Your task to perform on an android device: turn off priority inbox in the gmail app Image 0: 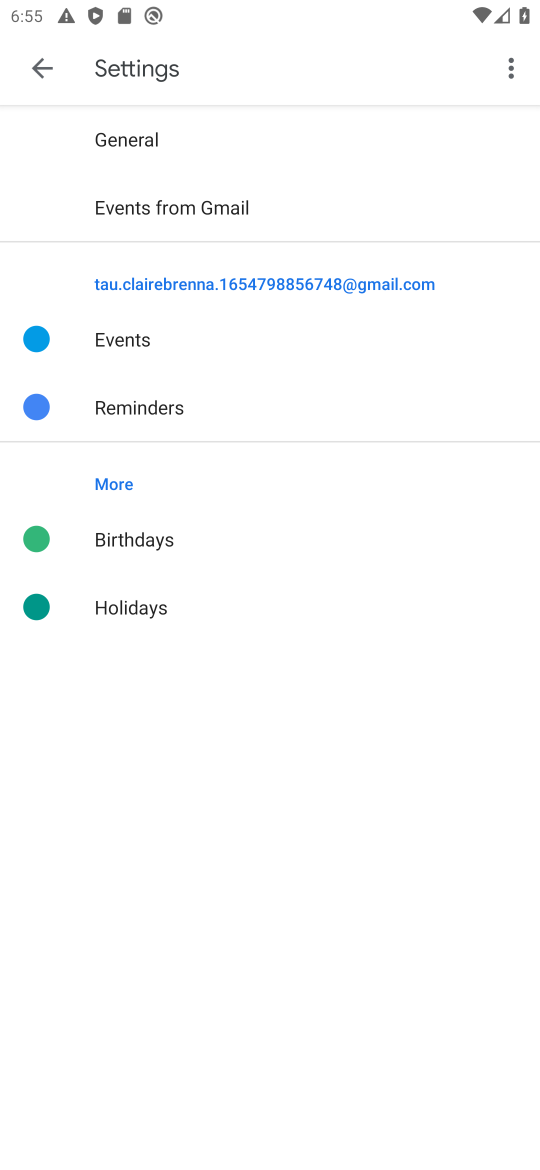
Step 0: press home button
Your task to perform on an android device: turn off priority inbox in the gmail app Image 1: 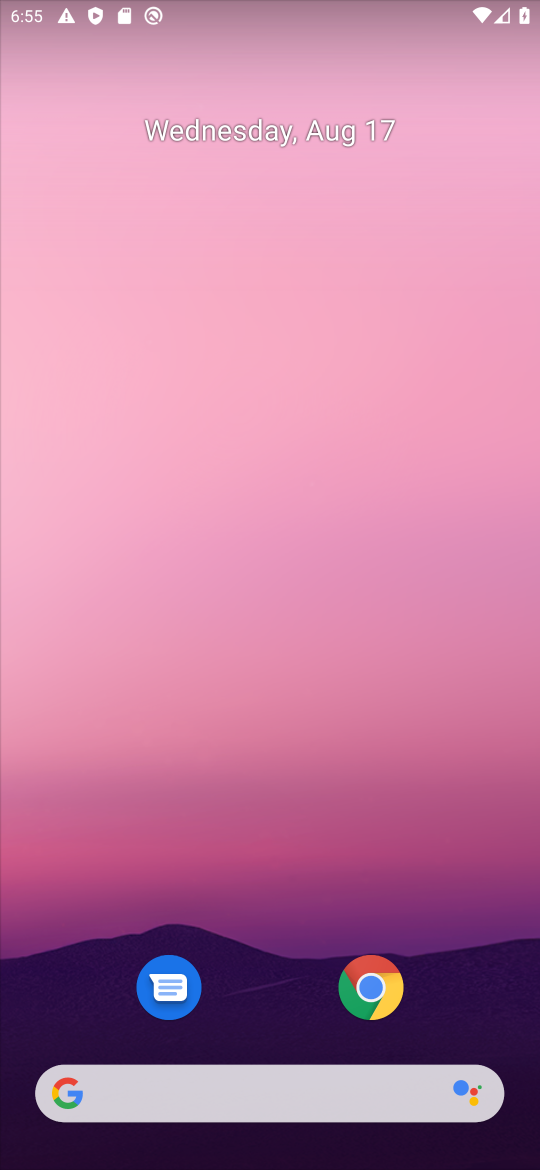
Step 1: drag from (517, 1035) to (219, 7)
Your task to perform on an android device: turn off priority inbox in the gmail app Image 2: 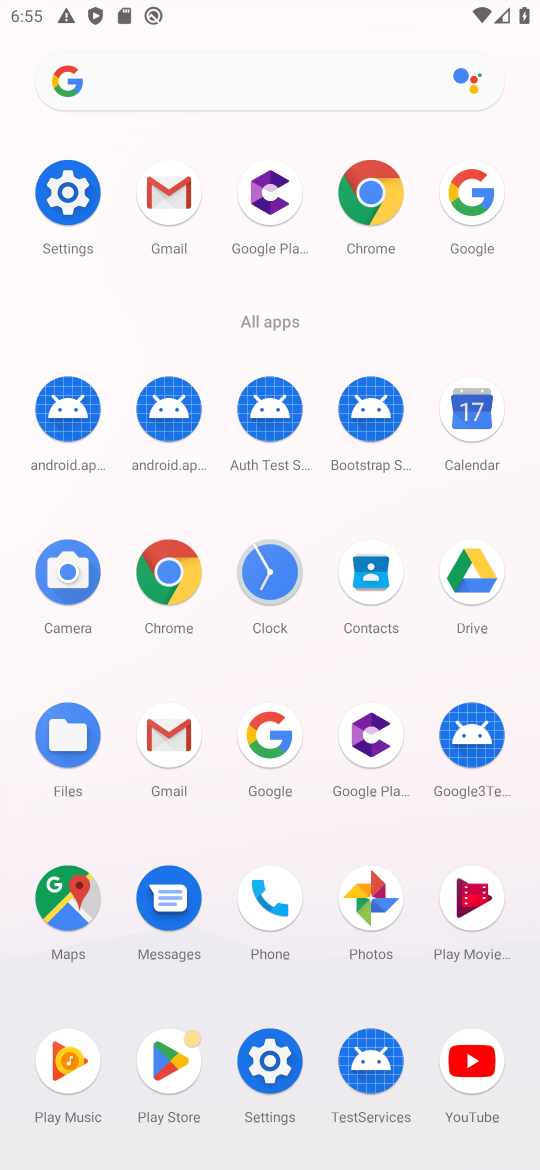
Step 2: click (155, 743)
Your task to perform on an android device: turn off priority inbox in the gmail app Image 3: 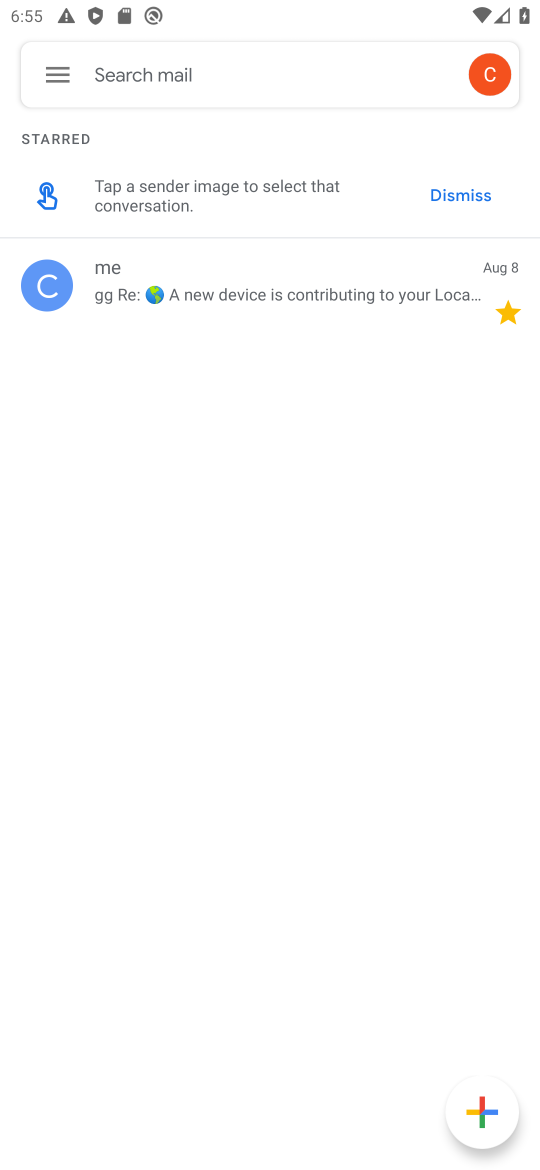
Step 3: click (33, 69)
Your task to perform on an android device: turn off priority inbox in the gmail app Image 4: 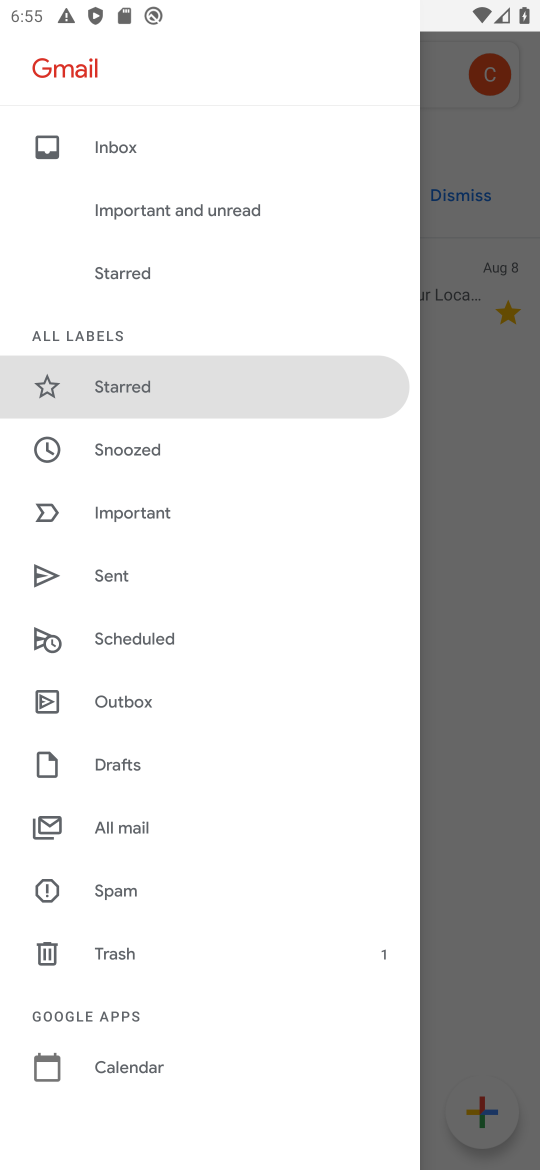
Step 4: drag from (196, 1030) to (131, 0)
Your task to perform on an android device: turn off priority inbox in the gmail app Image 5: 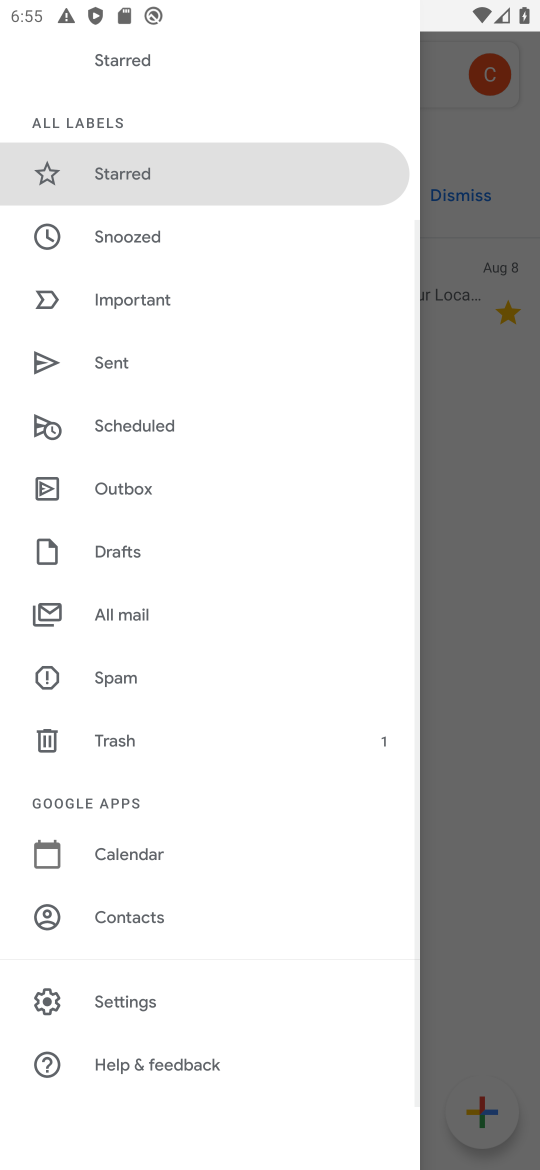
Step 5: click (112, 996)
Your task to perform on an android device: turn off priority inbox in the gmail app Image 6: 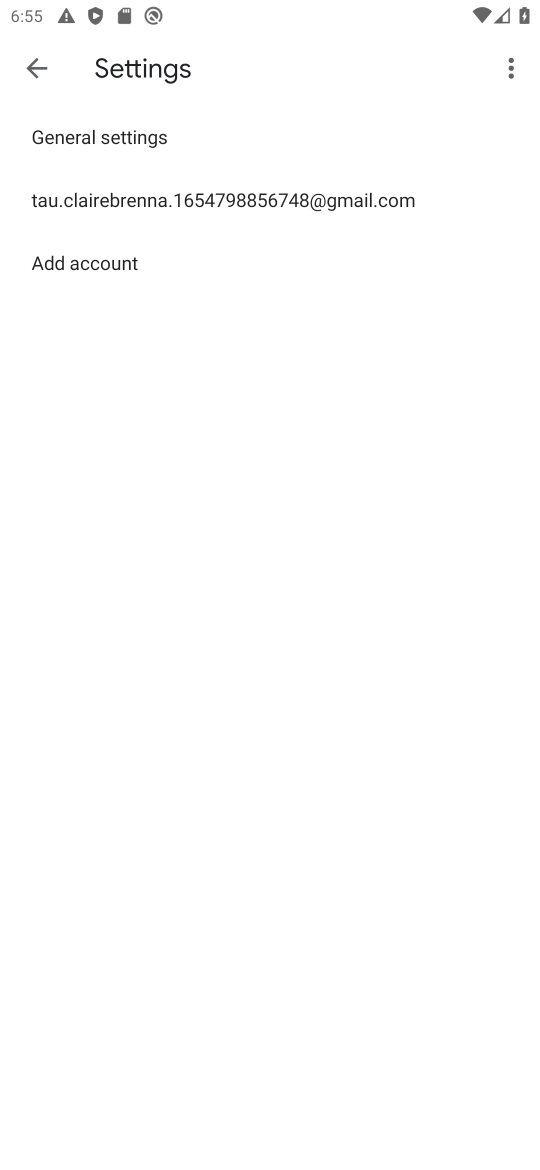
Step 6: click (197, 207)
Your task to perform on an android device: turn off priority inbox in the gmail app Image 7: 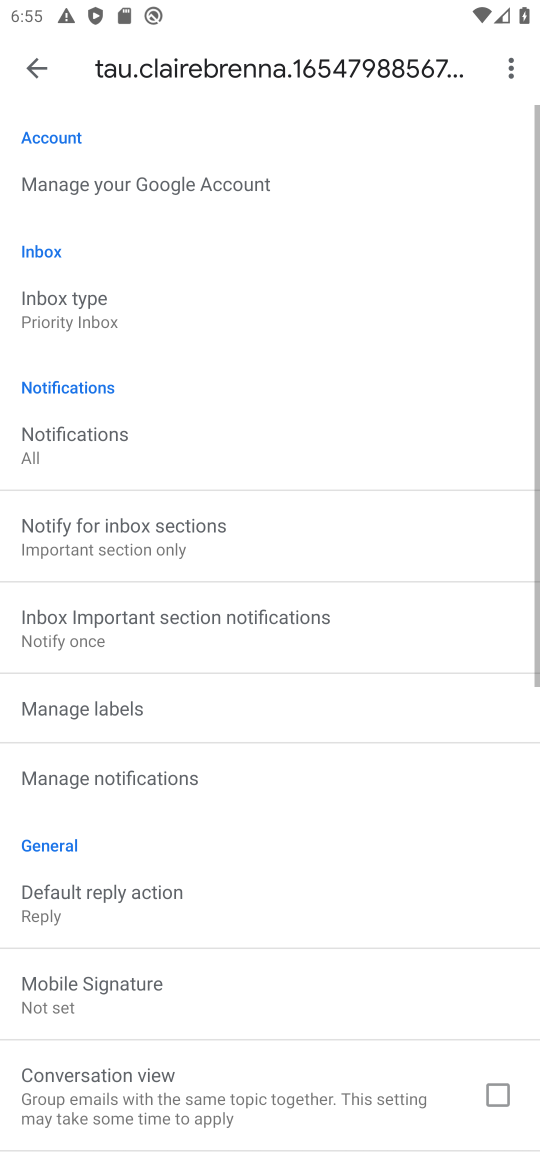
Step 7: click (103, 301)
Your task to perform on an android device: turn off priority inbox in the gmail app Image 8: 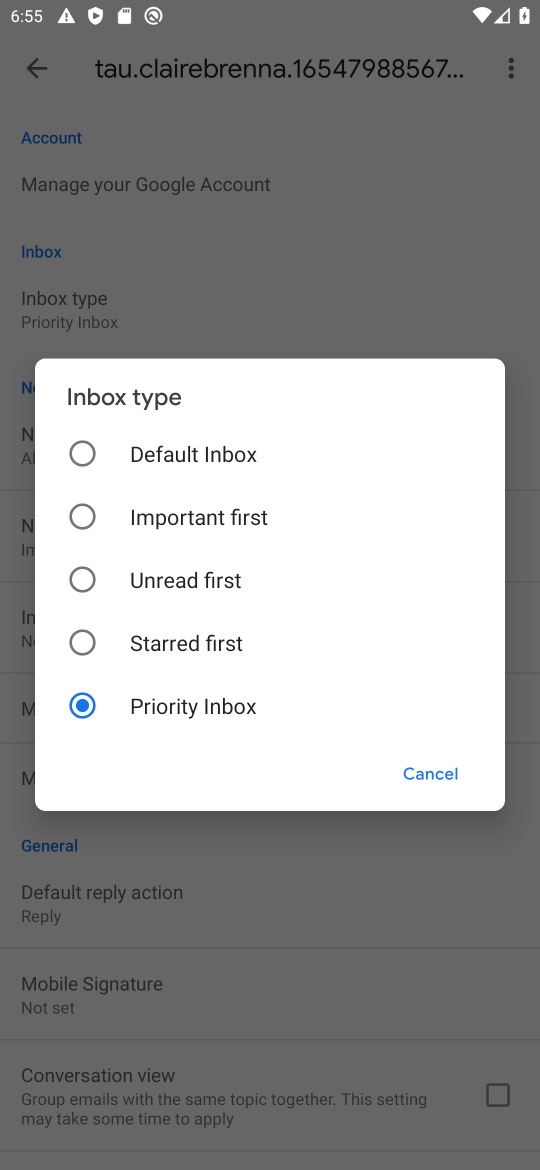
Step 8: click (76, 451)
Your task to perform on an android device: turn off priority inbox in the gmail app Image 9: 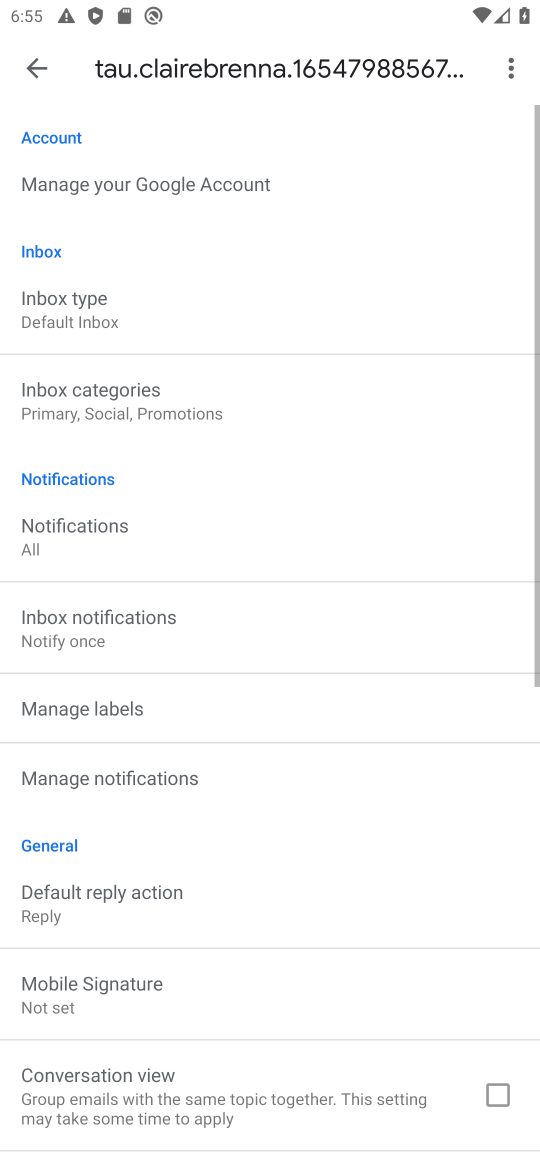
Step 9: task complete